Your task to perform on an android device: Go to privacy settings Image 0: 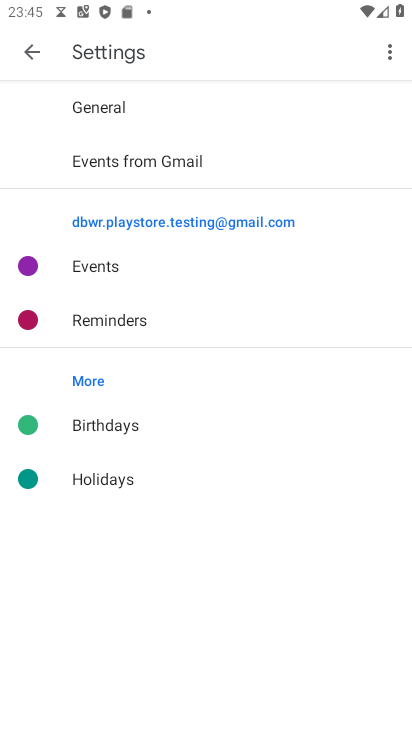
Step 0: press back button
Your task to perform on an android device: Go to privacy settings Image 1: 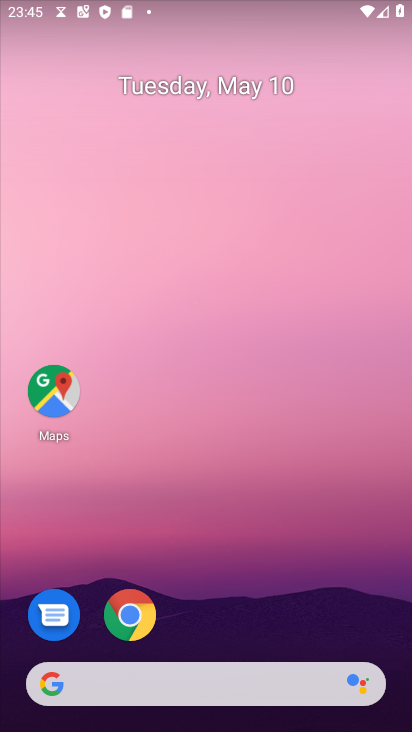
Step 1: drag from (234, 625) to (208, 148)
Your task to perform on an android device: Go to privacy settings Image 2: 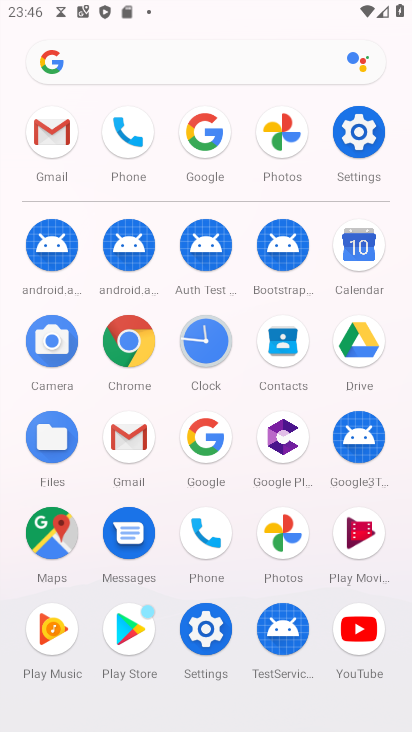
Step 2: click (358, 130)
Your task to perform on an android device: Go to privacy settings Image 3: 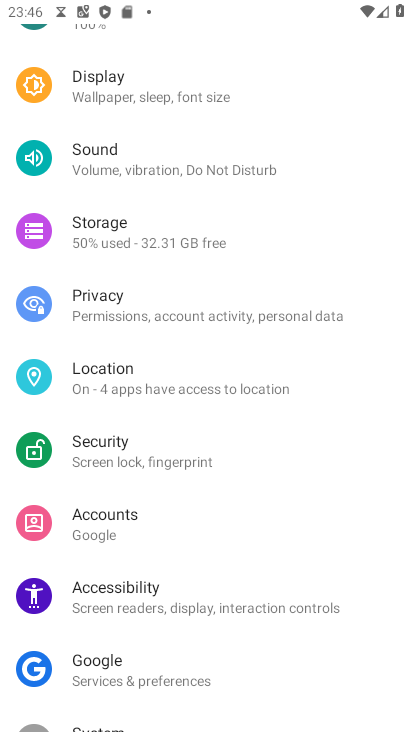
Step 3: click (116, 311)
Your task to perform on an android device: Go to privacy settings Image 4: 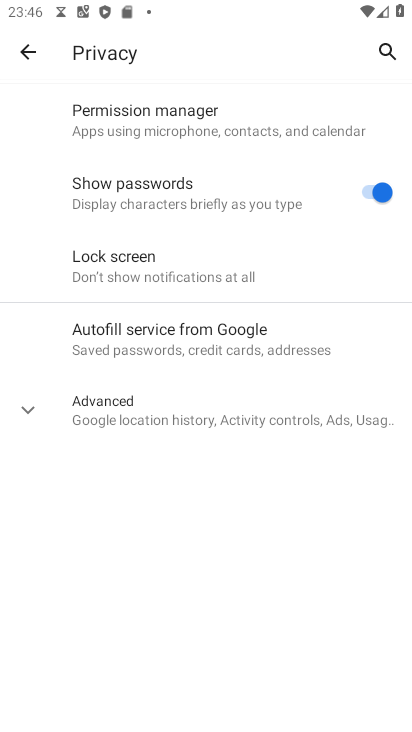
Step 4: task complete